Your task to perform on an android device: choose inbox layout in the gmail app Image 0: 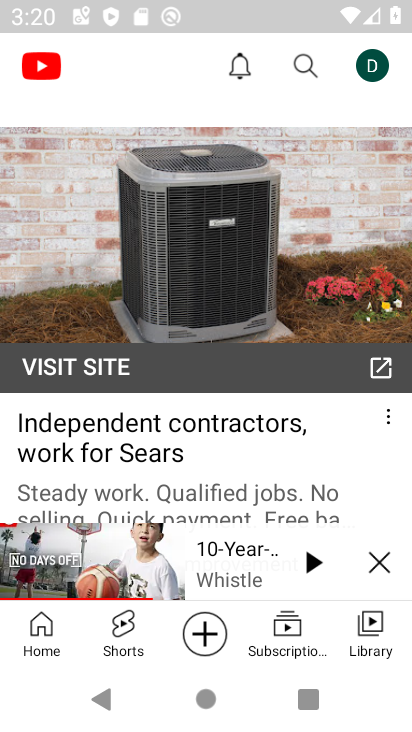
Step 0: press home button
Your task to perform on an android device: choose inbox layout in the gmail app Image 1: 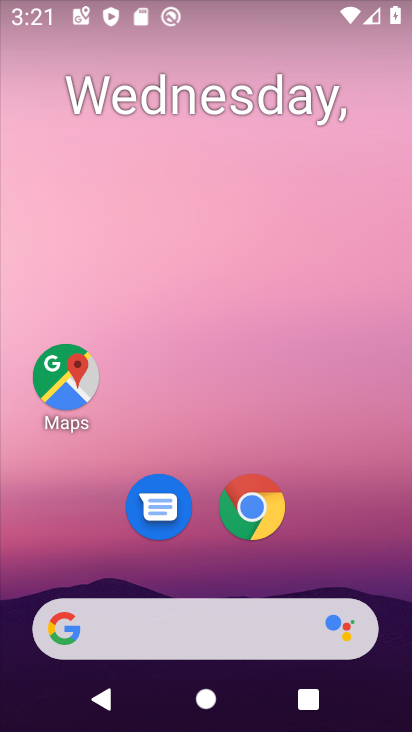
Step 1: drag from (321, 548) to (279, 302)
Your task to perform on an android device: choose inbox layout in the gmail app Image 2: 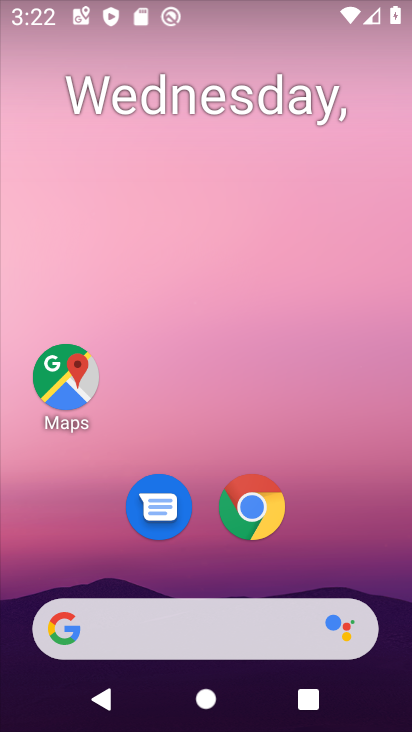
Step 2: drag from (321, 561) to (324, 401)
Your task to perform on an android device: choose inbox layout in the gmail app Image 3: 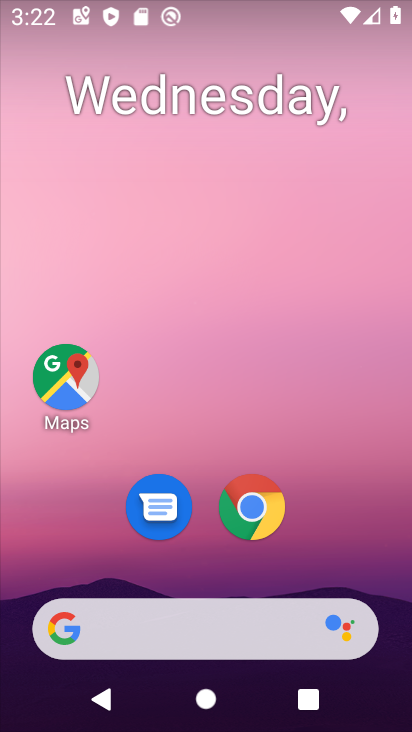
Step 3: drag from (317, 562) to (244, 53)
Your task to perform on an android device: choose inbox layout in the gmail app Image 4: 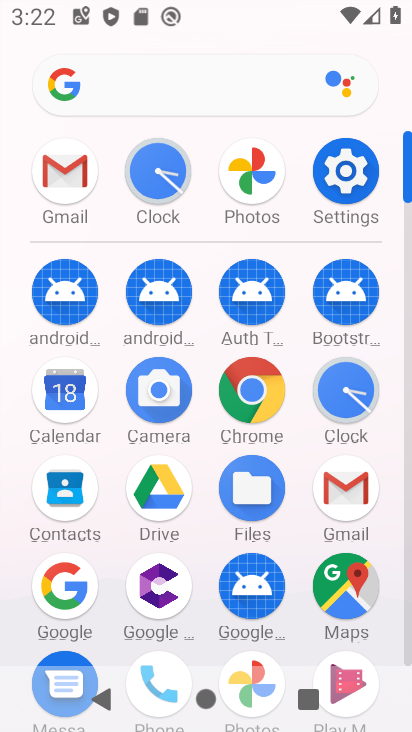
Step 4: click (337, 498)
Your task to perform on an android device: choose inbox layout in the gmail app Image 5: 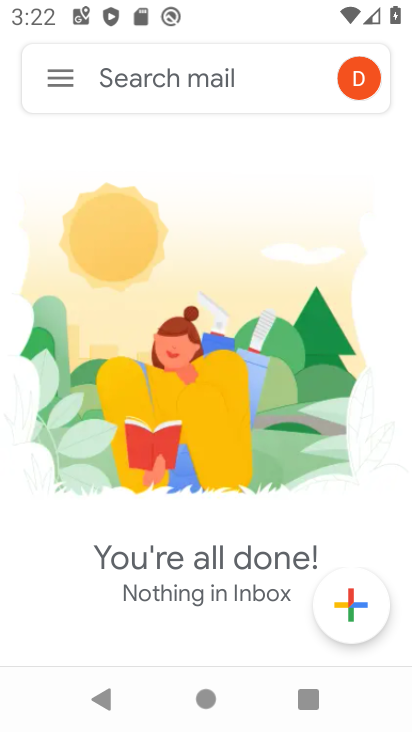
Step 5: click (59, 75)
Your task to perform on an android device: choose inbox layout in the gmail app Image 6: 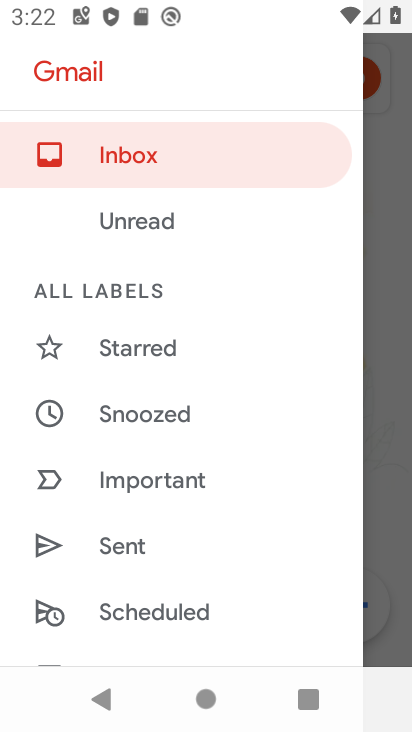
Step 6: drag from (177, 563) to (135, 5)
Your task to perform on an android device: choose inbox layout in the gmail app Image 7: 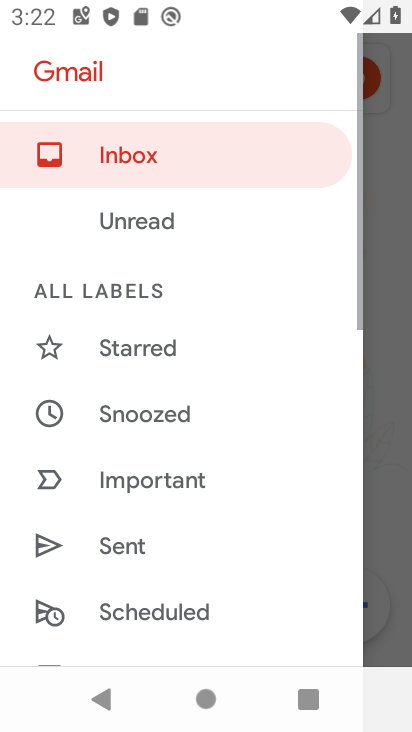
Step 7: drag from (167, 621) to (137, 104)
Your task to perform on an android device: choose inbox layout in the gmail app Image 8: 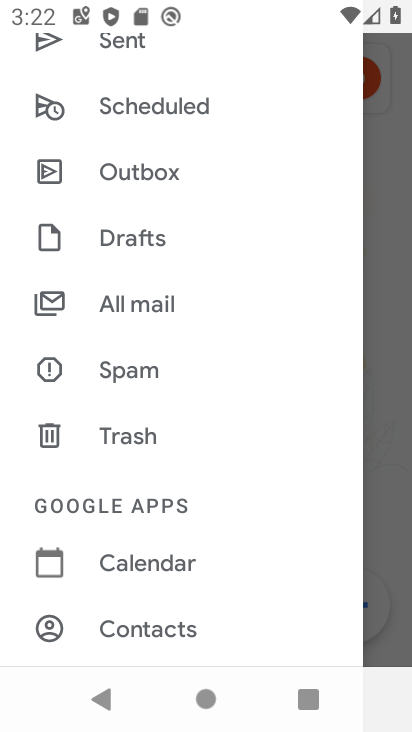
Step 8: drag from (166, 618) to (160, 0)
Your task to perform on an android device: choose inbox layout in the gmail app Image 9: 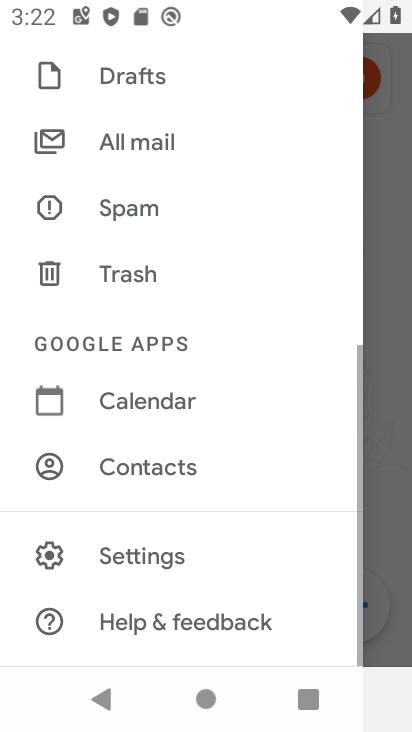
Step 9: click (167, 559)
Your task to perform on an android device: choose inbox layout in the gmail app Image 10: 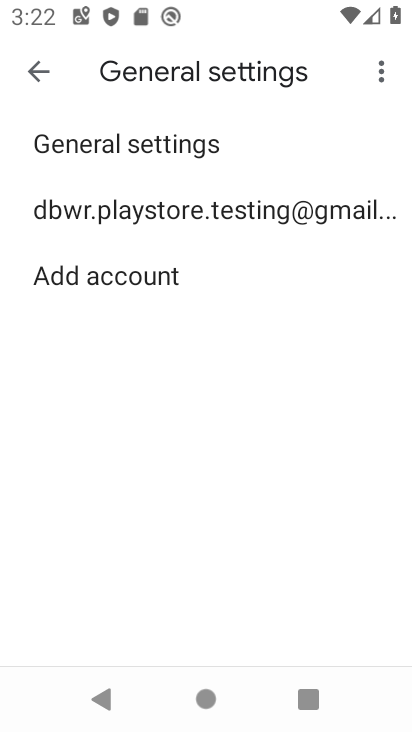
Step 10: click (216, 192)
Your task to perform on an android device: choose inbox layout in the gmail app Image 11: 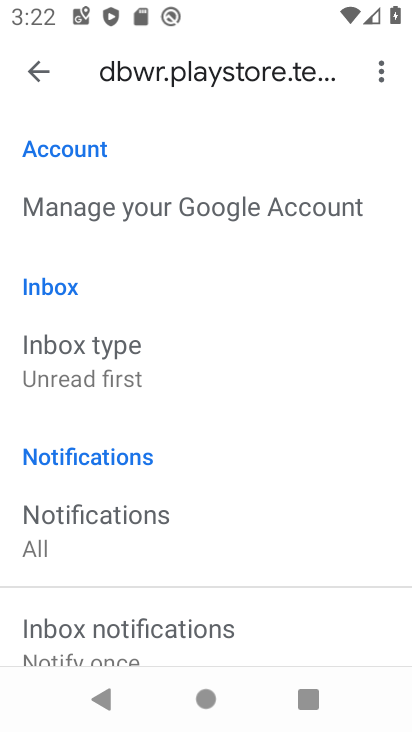
Step 11: click (131, 355)
Your task to perform on an android device: choose inbox layout in the gmail app Image 12: 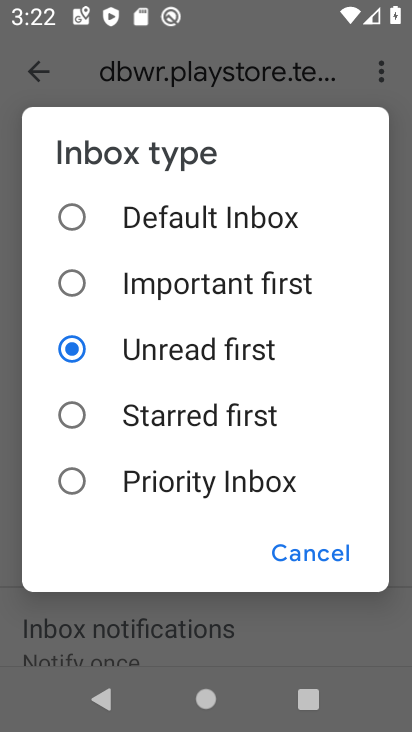
Step 12: drag from (166, 468) to (161, 179)
Your task to perform on an android device: choose inbox layout in the gmail app Image 13: 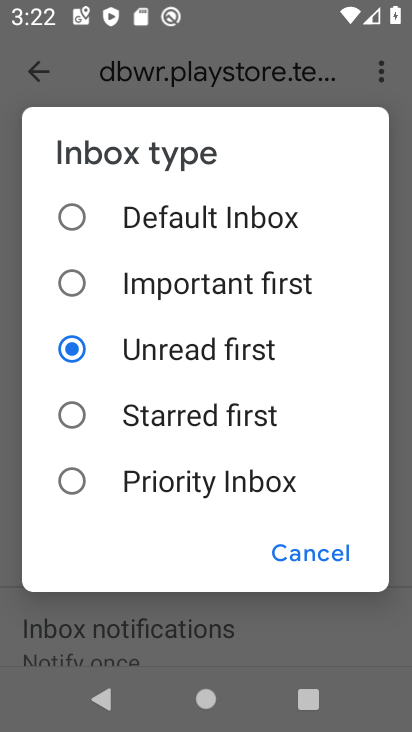
Step 13: click (176, 463)
Your task to perform on an android device: choose inbox layout in the gmail app Image 14: 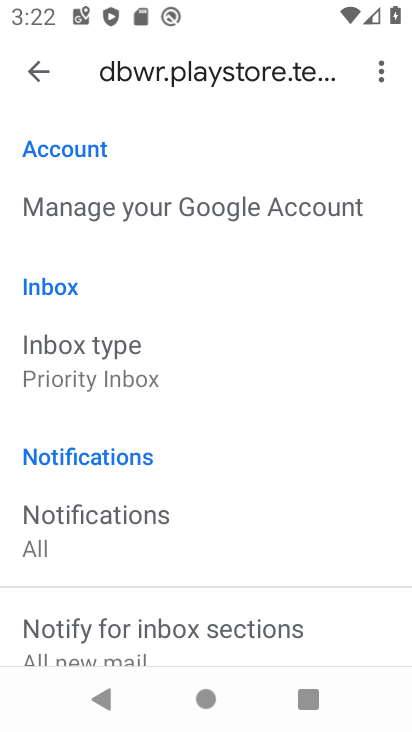
Step 14: task complete